Your task to perform on an android device: Clear all items from cart on ebay.com. Add rayovac triple a to the cart on ebay.com Image 0: 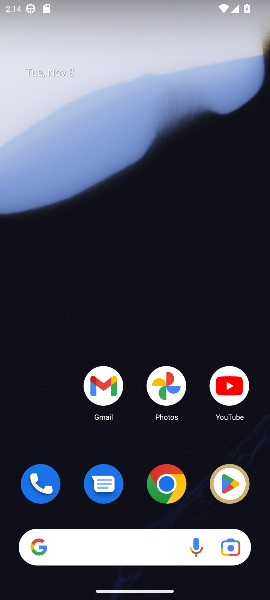
Step 0: click (170, 488)
Your task to perform on an android device: Clear all items from cart on ebay.com. Add rayovac triple a to the cart on ebay.com Image 1: 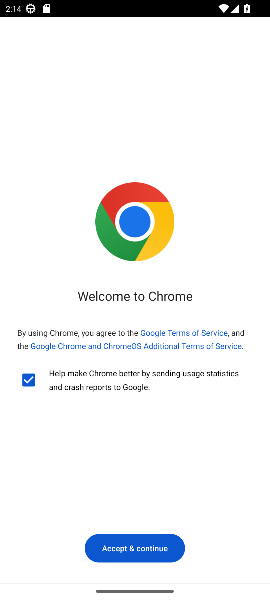
Step 1: click (162, 546)
Your task to perform on an android device: Clear all items from cart on ebay.com. Add rayovac triple a to the cart on ebay.com Image 2: 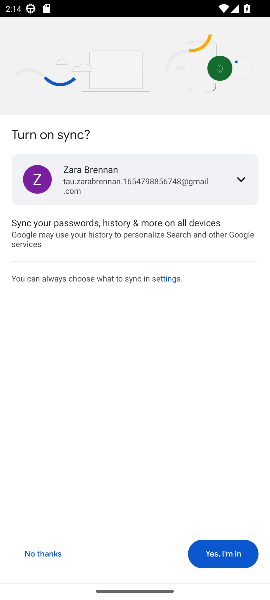
Step 2: click (208, 547)
Your task to perform on an android device: Clear all items from cart on ebay.com. Add rayovac triple a to the cart on ebay.com Image 3: 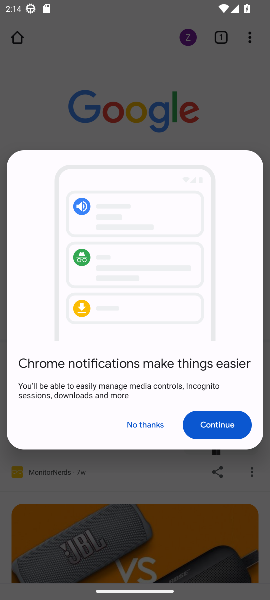
Step 3: click (211, 423)
Your task to perform on an android device: Clear all items from cart on ebay.com. Add rayovac triple a to the cart on ebay.com Image 4: 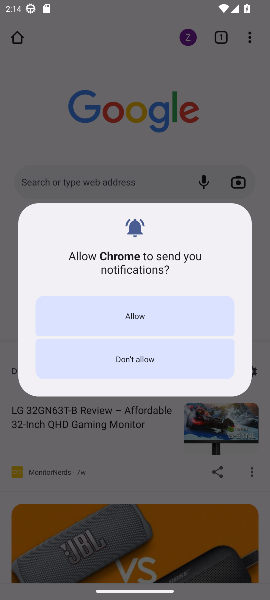
Step 4: click (175, 303)
Your task to perform on an android device: Clear all items from cart on ebay.com. Add rayovac triple a to the cart on ebay.com Image 5: 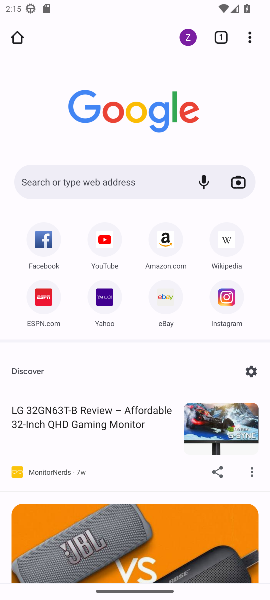
Step 5: click (174, 298)
Your task to perform on an android device: Clear all items from cart on ebay.com. Add rayovac triple a to the cart on ebay.com Image 6: 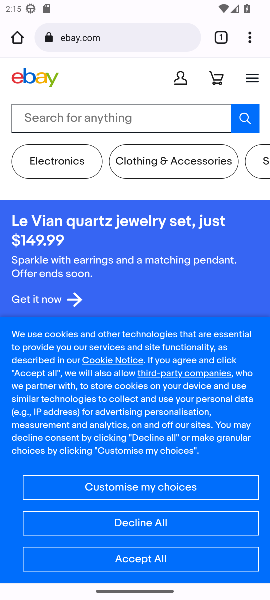
Step 6: click (216, 78)
Your task to perform on an android device: Clear all items from cart on ebay.com. Add rayovac triple a to the cart on ebay.com Image 7: 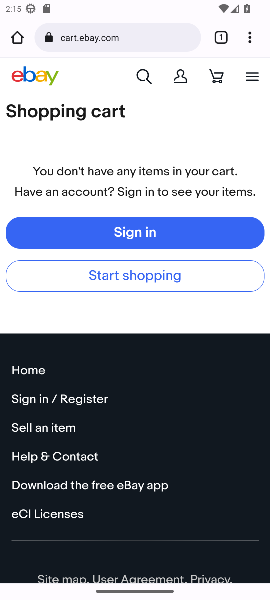
Step 7: click (139, 79)
Your task to perform on an android device: Clear all items from cart on ebay.com. Add rayovac triple a to the cart on ebay.com Image 8: 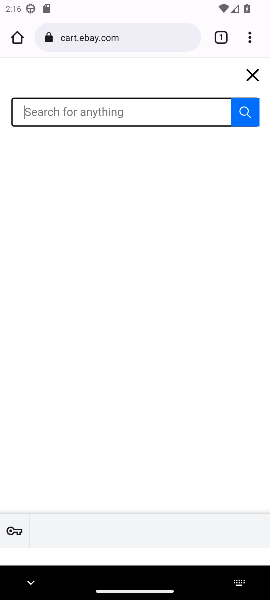
Step 8: type "rayovac triple"
Your task to perform on an android device: Clear all items from cart on ebay.com. Add rayovac triple a to the cart on ebay.com Image 9: 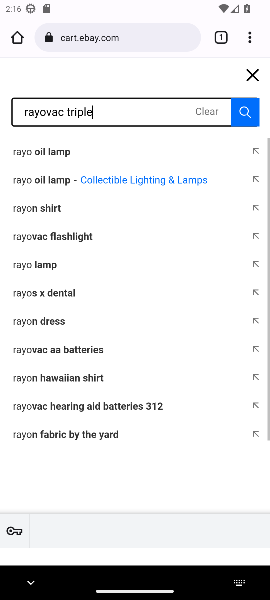
Step 9: click (250, 114)
Your task to perform on an android device: Clear all items from cart on ebay.com. Add rayovac triple a to the cart on ebay.com Image 10: 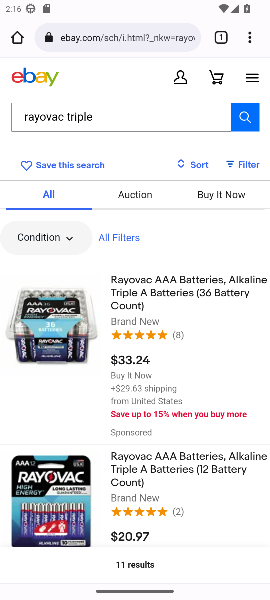
Step 10: click (154, 292)
Your task to perform on an android device: Clear all items from cart on ebay.com. Add rayovac triple a to the cart on ebay.com Image 11: 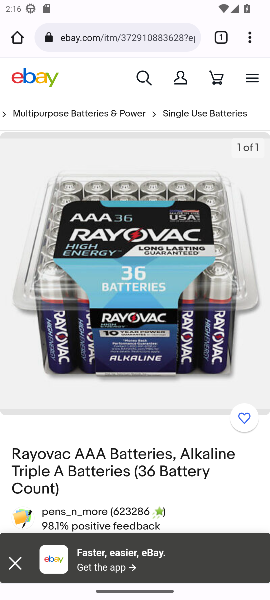
Step 11: drag from (66, 500) to (156, 49)
Your task to perform on an android device: Clear all items from cart on ebay.com. Add rayovac triple a to the cart on ebay.com Image 12: 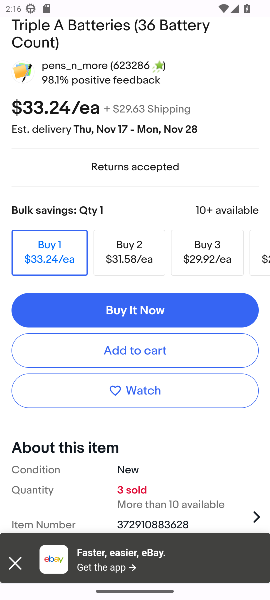
Step 12: click (126, 342)
Your task to perform on an android device: Clear all items from cart on ebay.com. Add rayovac triple a to the cart on ebay.com Image 13: 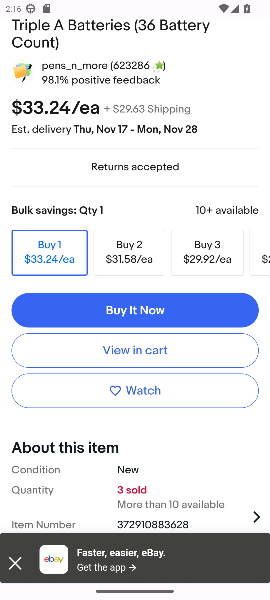
Step 13: task complete